Your task to perform on an android device: Search for Mexican restaurants on Maps Image 0: 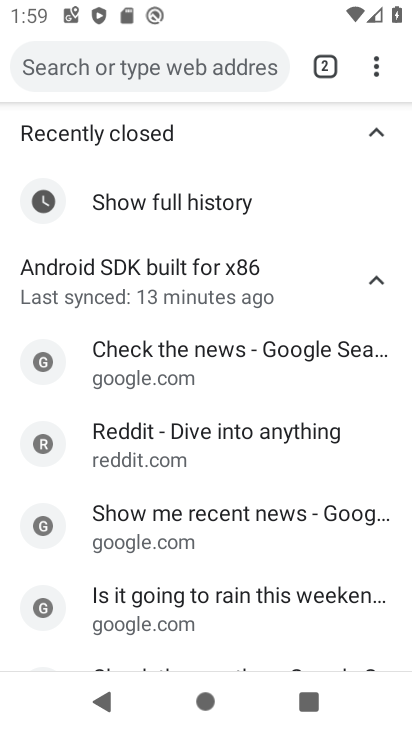
Step 0: press home button
Your task to perform on an android device: Search for Mexican restaurants on Maps Image 1: 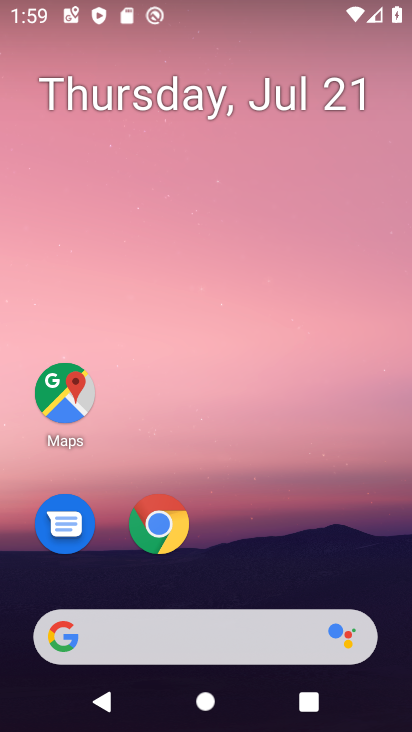
Step 1: click (53, 407)
Your task to perform on an android device: Search for Mexican restaurants on Maps Image 2: 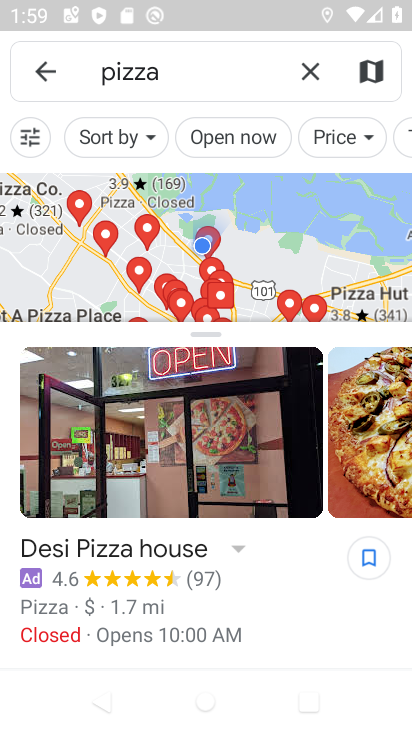
Step 2: click (302, 70)
Your task to perform on an android device: Search for Mexican restaurants on Maps Image 3: 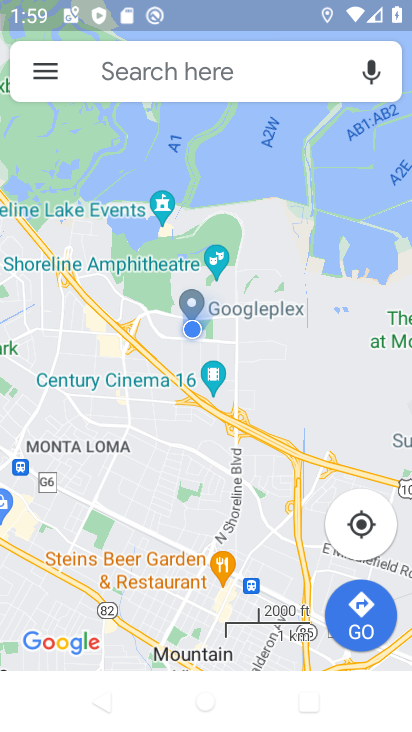
Step 3: click (236, 62)
Your task to perform on an android device: Search for Mexican restaurants on Maps Image 4: 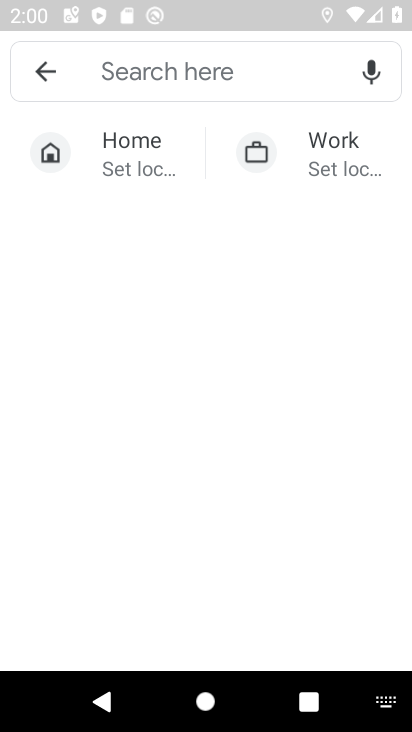
Step 4: type "Mexican Restaurants"
Your task to perform on an android device: Search for Mexican restaurants on Maps Image 5: 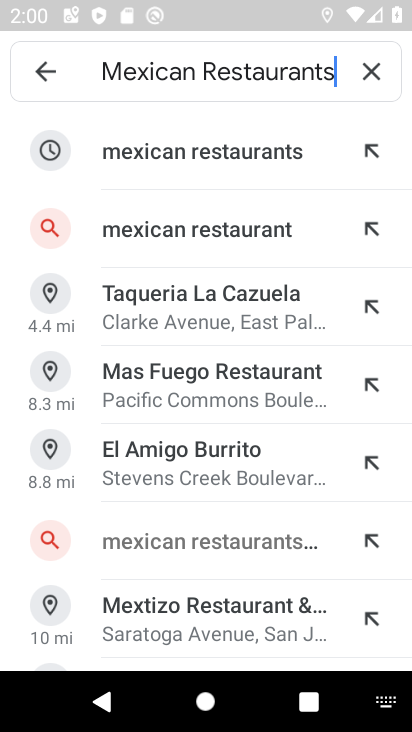
Step 5: click (278, 229)
Your task to perform on an android device: Search for Mexican restaurants on Maps Image 6: 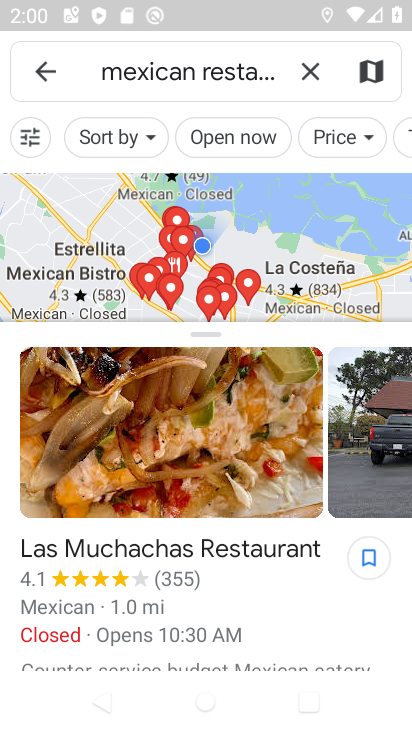
Step 6: task complete